Your task to perform on an android device: turn off airplane mode Image 0: 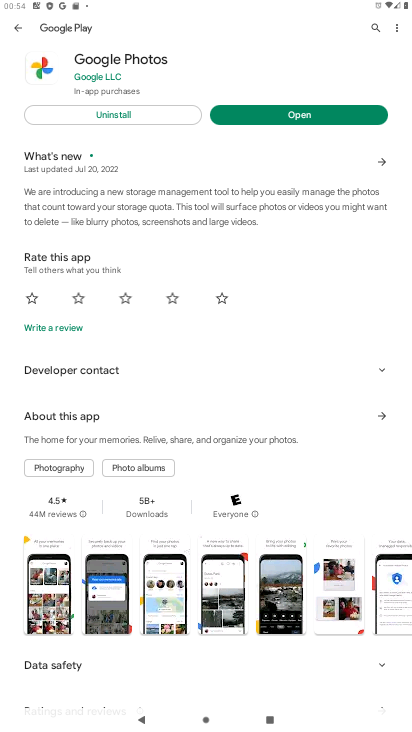
Step 0: press home button
Your task to perform on an android device: turn off airplane mode Image 1: 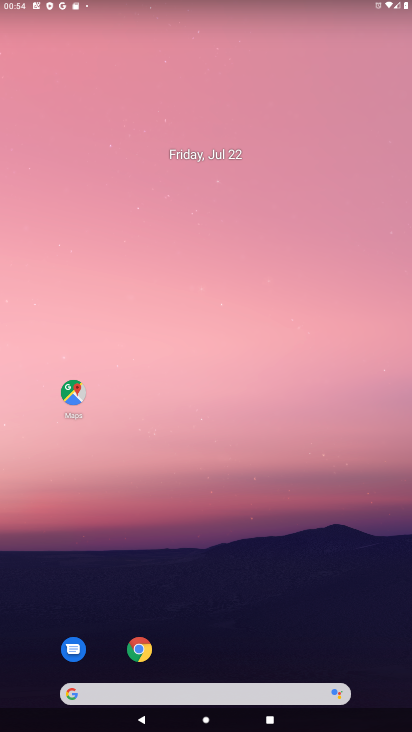
Step 1: drag from (283, 633) to (216, 45)
Your task to perform on an android device: turn off airplane mode Image 2: 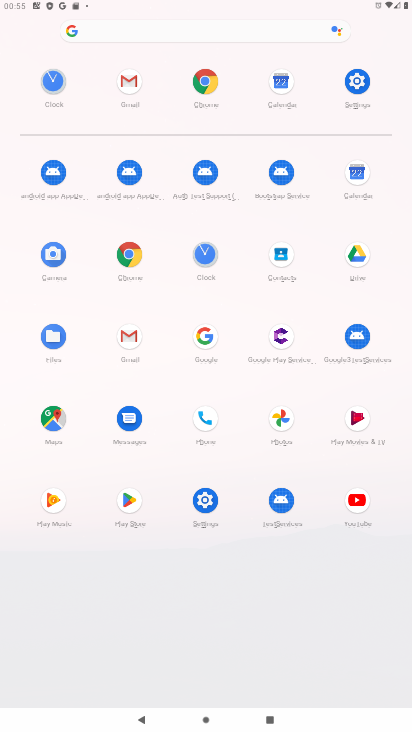
Step 2: click (365, 79)
Your task to perform on an android device: turn off airplane mode Image 3: 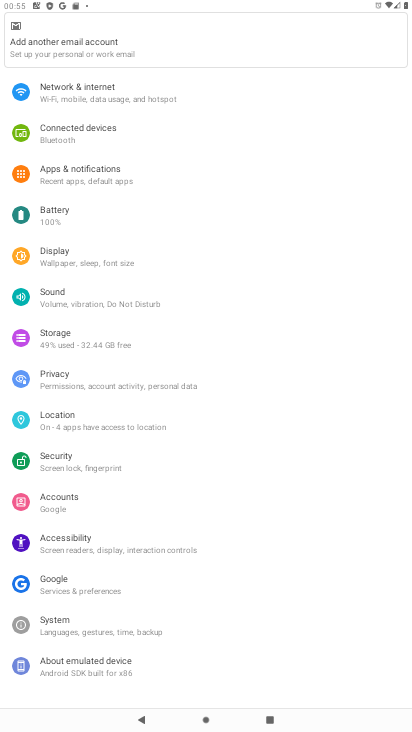
Step 3: click (129, 96)
Your task to perform on an android device: turn off airplane mode Image 4: 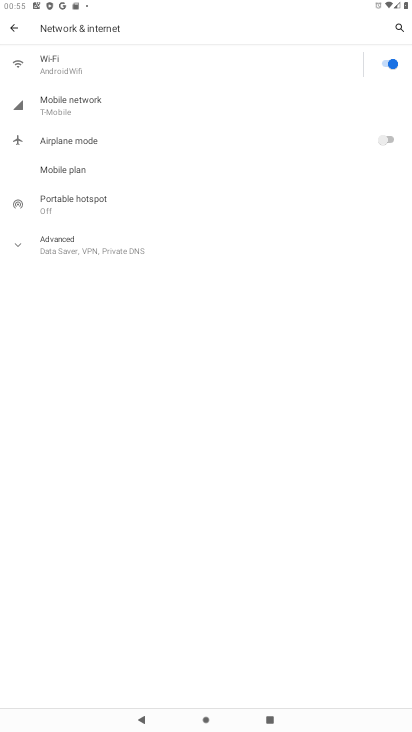
Step 4: task complete